Your task to perform on an android device: change alarm snooze length Image 0: 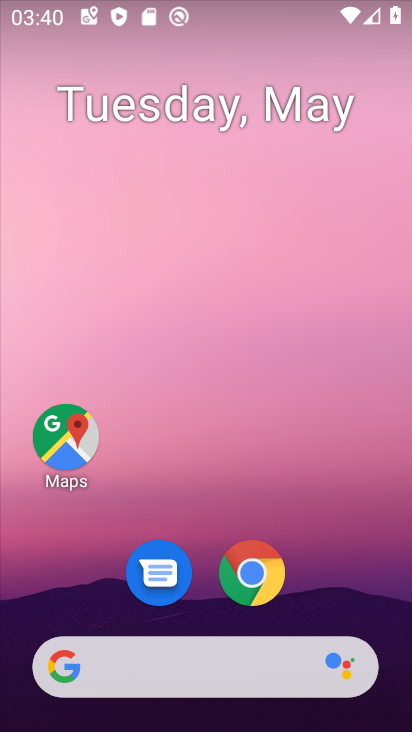
Step 0: drag from (193, 539) to (228, 39)
Your task to perform on an android device: change alarm snooze length Image 1: 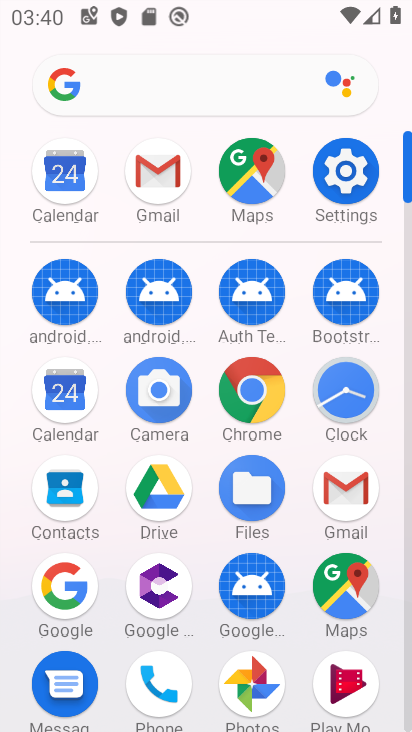
Step 1: click (347, 395)
Your task to perform on an android device: change alarm snooze length Image 2: 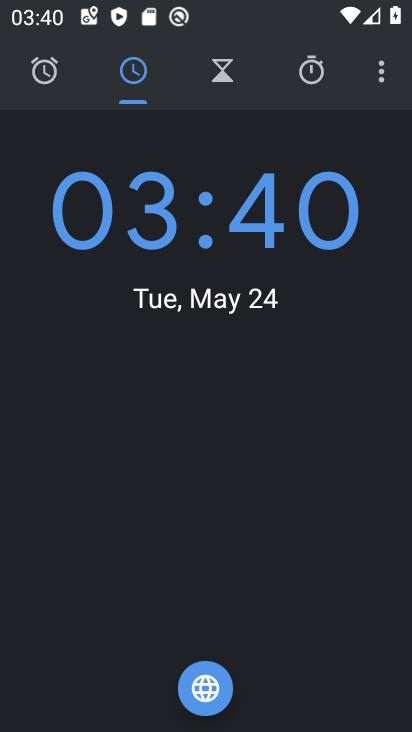
Step 2: click (383, 66)
Your task to perform on an android device: change alarm snooze length Image 3: 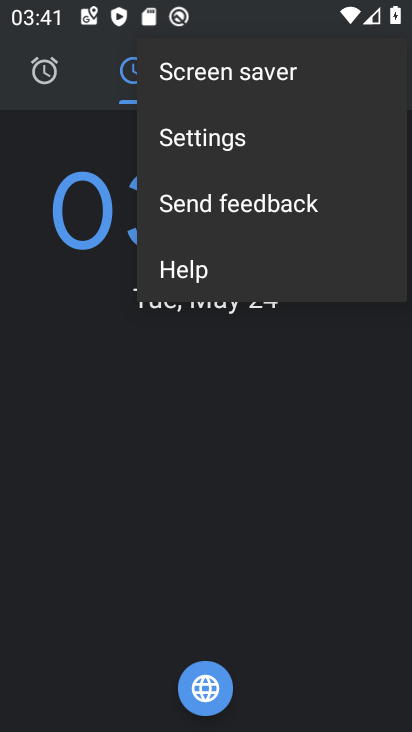
Step 3: click (209, 404)
Your task to perform on an android device: change alarm snooze length Image 4: 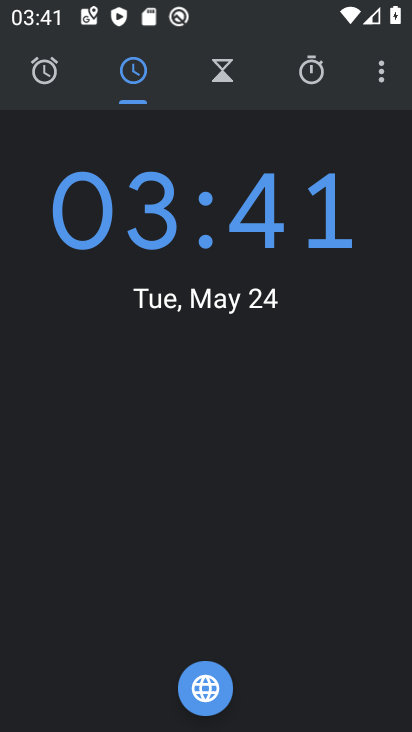
Step 4: click (374, 69)
Your task to perform on an android device: change alarm snooze length Image 5: 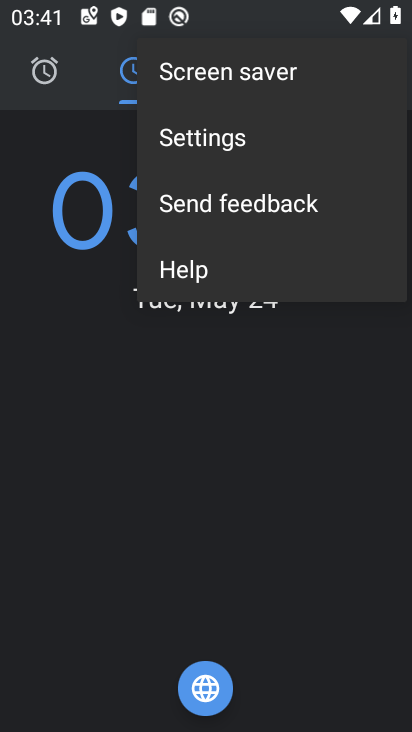
Step 5: click (252, 144)
Your task to perform on an android device: change alarm snooze length Image 6: 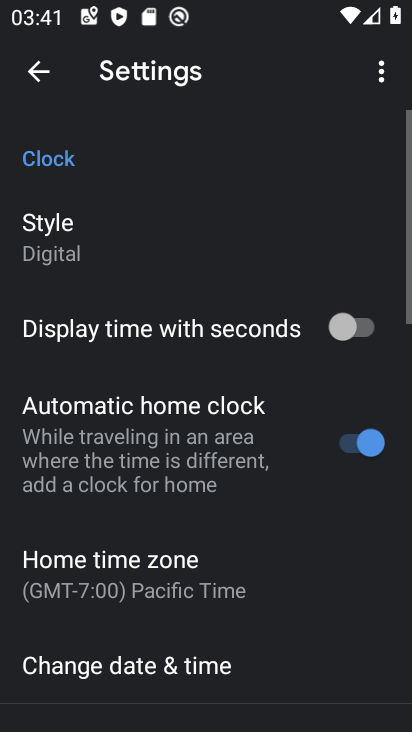
Step 6: drag from (159, 666) to (221, 148)
Your task to perform on an android device: change alarm snooze length Image 7: 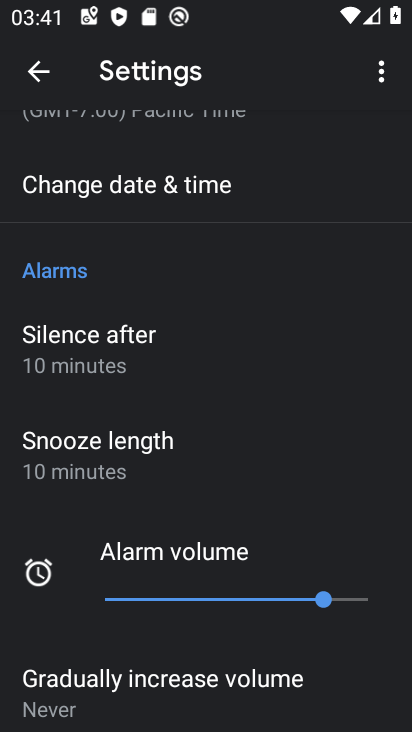
Step 7: click (125, 459)
Your task to perform on an android device: change alarm snooze length Image 8: 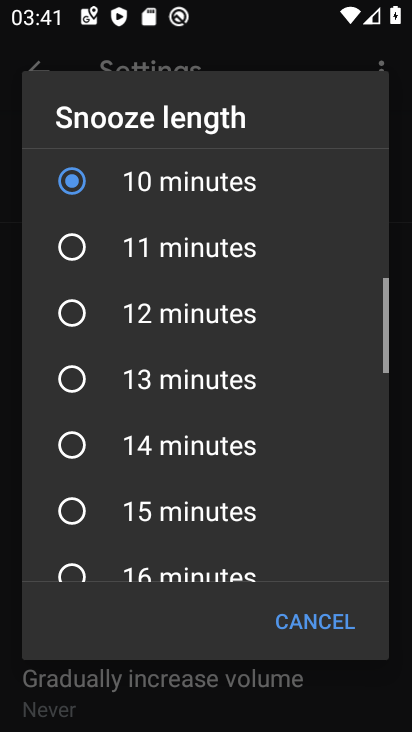
Step 8: click (73, 379)
Your task to perform on an android device: change alarm snooze length Image 9: 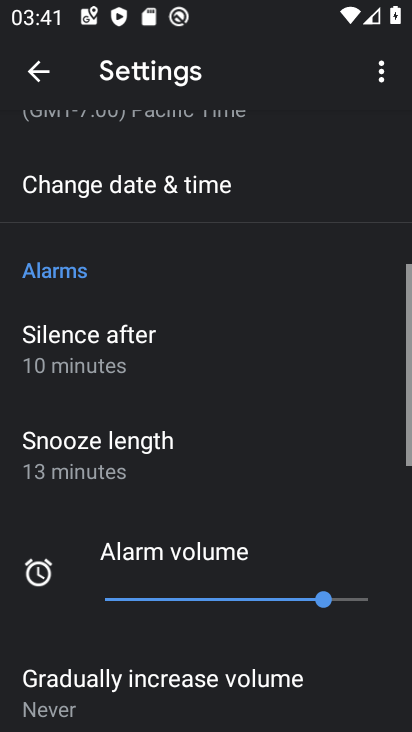
Step 9: task complete